Your task to perform on an android device: Open Google Image 0: 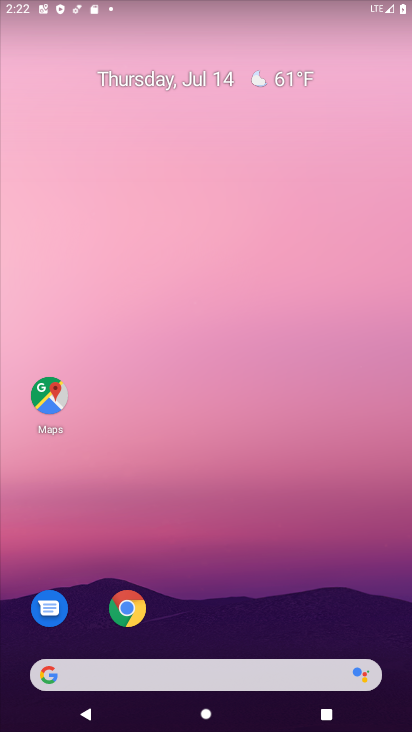
Step 0: drag from (218, 672) to (245, 319)
Your task to perform on an android device: Open Google Image 1: 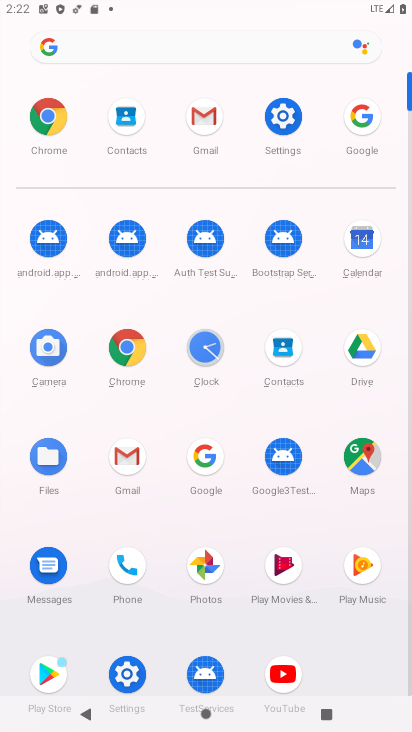
Step 1: click (192, 458)
Your task to perform on an android device: Open Google Image 2: 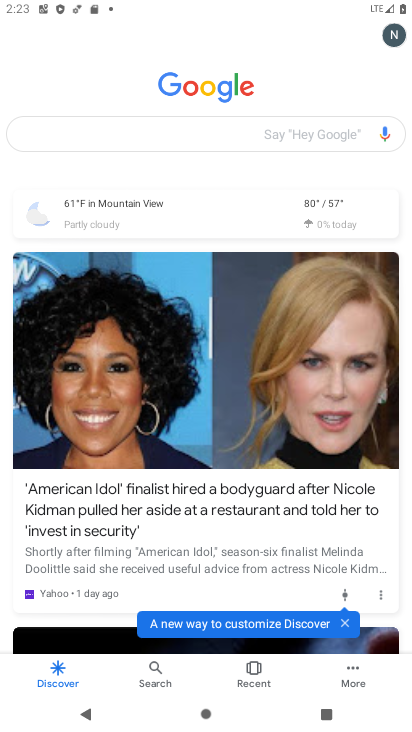
Step 2: click (241, 228)
Your task to perform on an android device: Open Google Image 3: 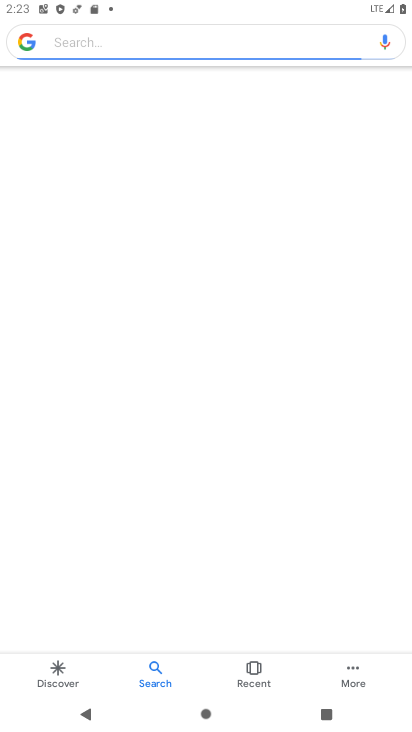
Step 3: task complete